Your task to perform on an android device: Open calendar and show me the first week of next month Image 0: 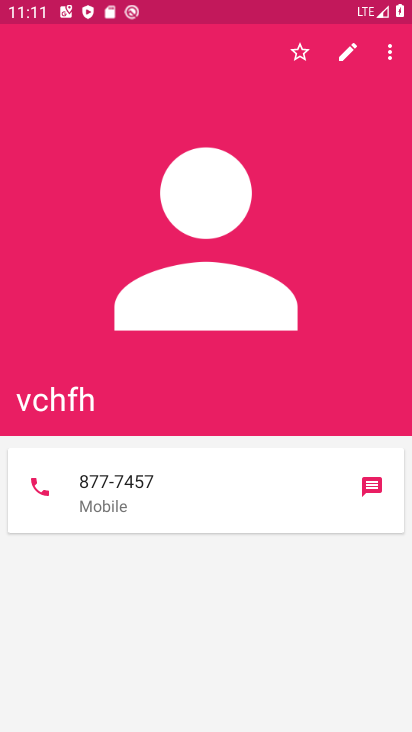
Step 0: press home button
Your task to perform on an android device: Open calendar and show me the first week of next month Image 1: 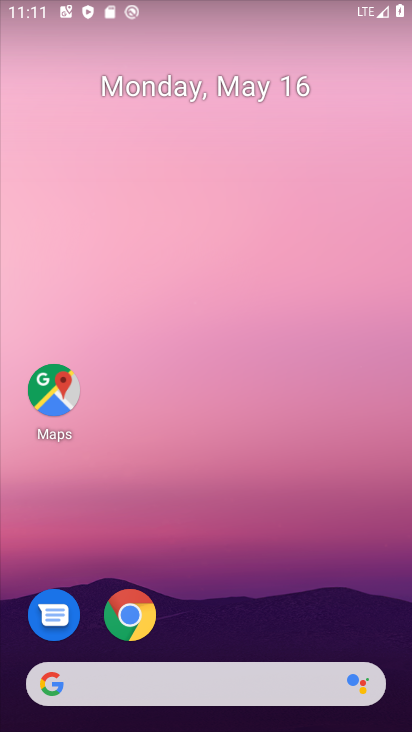
Step 1: drag from (231, 668) to (199, 364)
Your task to perform on an android device: Open calendar and show me the first week of next month Image 2: 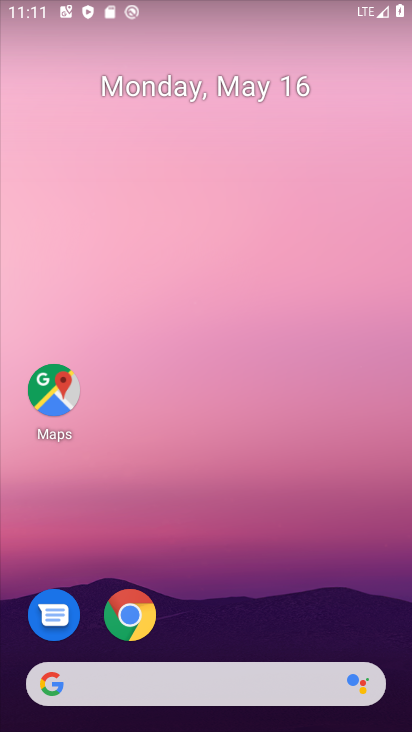
Step 2: drag from (244, 622) to (246, 157)
Your task to perform on an android device: Open calendar and show me the first week of next month Image 3: 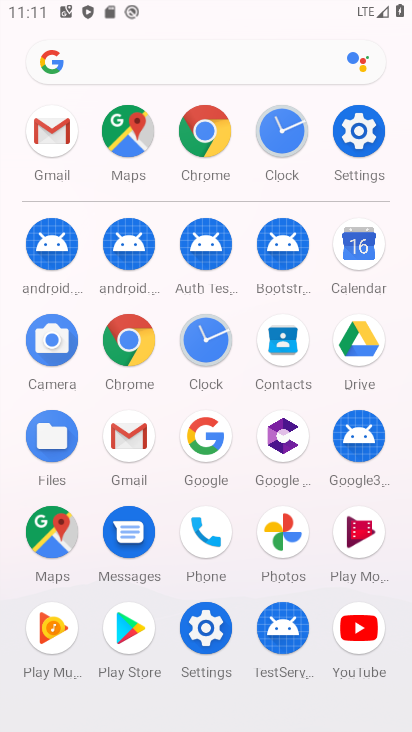
Step 3: click (376, 271)
Your task to perform on an android device: Open calendar and show me the first week of next month Image 4: 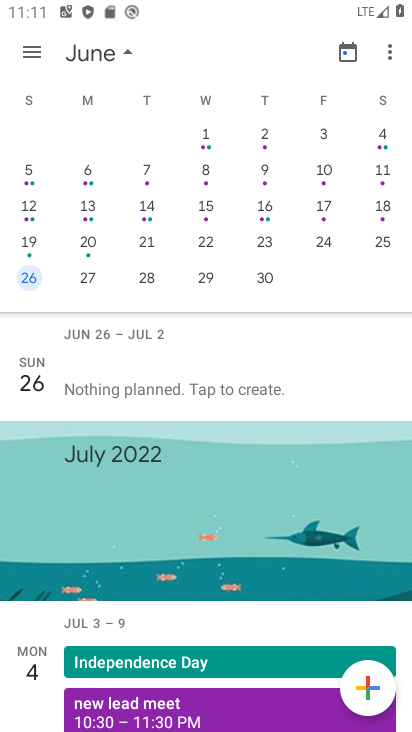
Step 4: click (35, 186)
Your task to perform on an android device: Open calendar and show me the first week of next month Image 5: 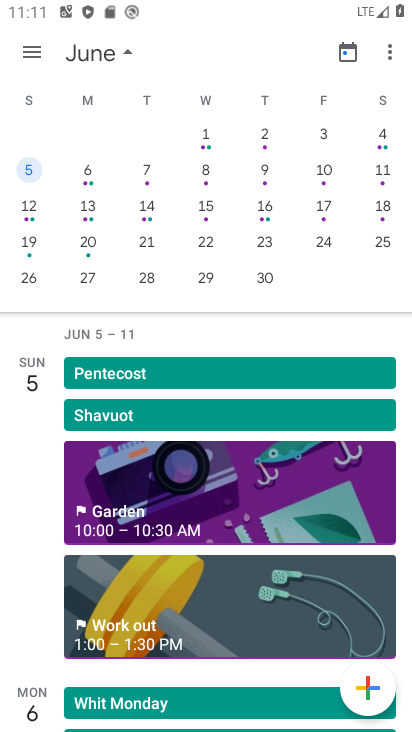
Step 5: task complete